Your task to perform on an android device: add a contact in the contacts app Image 0: 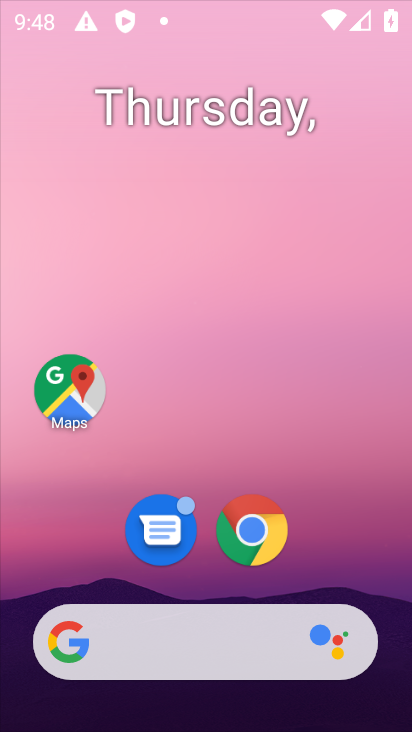
Step 0: press home button
Your task to perform on an android device: add a contact in the contacts app Image 1: 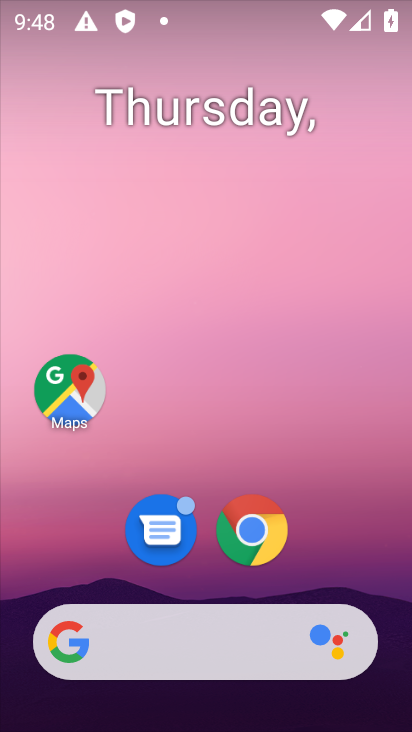
Step 1: press home button
Your task to perform on an android device: add a contact in the contacts app Image 2: 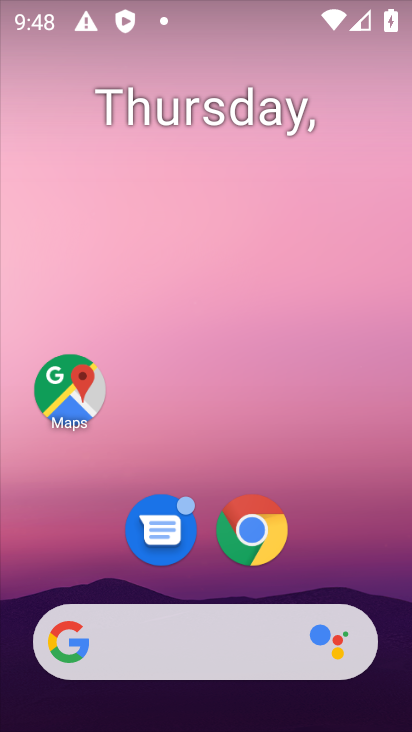
Step 2: drag from (356, 575) to (408, 45)
Your task to perform on an android device: add a contact in the contacts app Image 3: 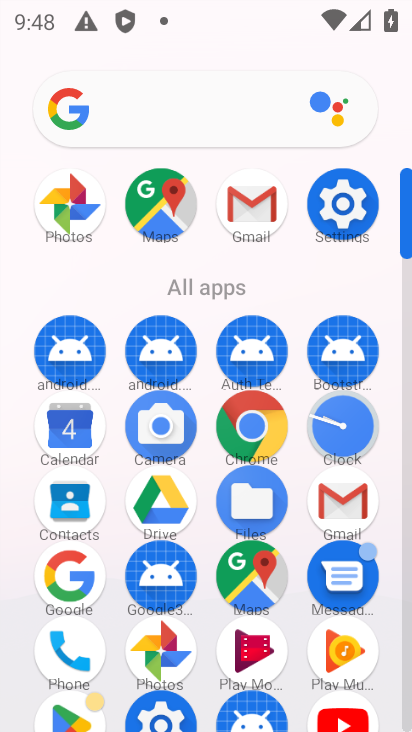
Step 3: click (65, 513)
Your task to perform on an android device: add a contact in the contacts app Image 4: 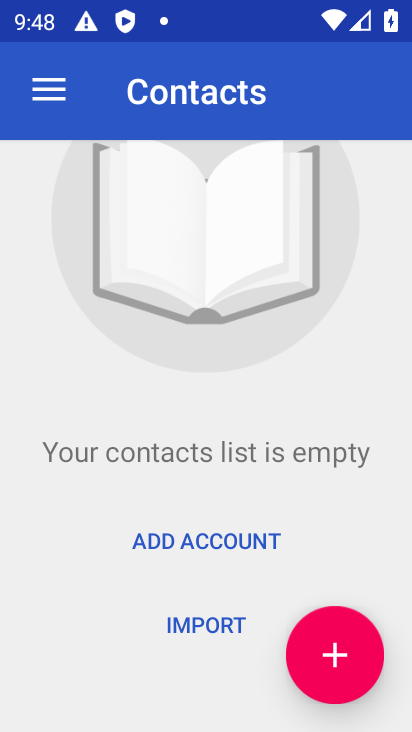
Step 4: click (336, 651)
Your task to perform on an android device: add a contact in the contacts app Image 5: 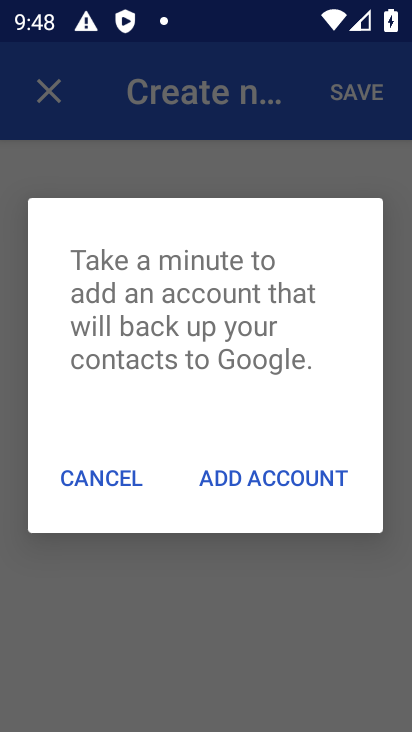
Step 5: click (103, 468)
Your task to perform on an android device: add a contact in the contacts app Image 6: 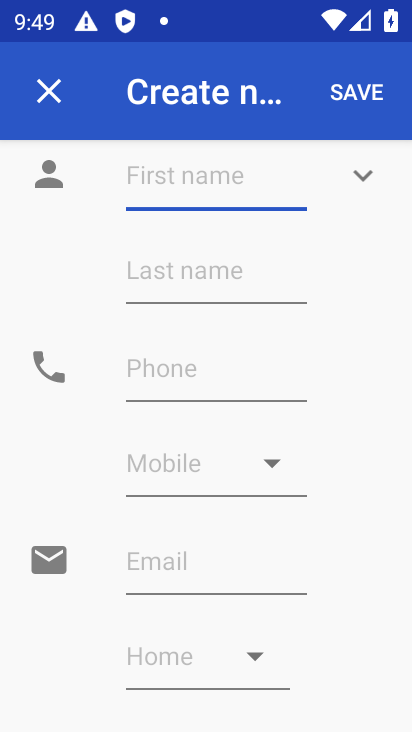
Step 6: type "jjjjttttttttt"
Your task to perform on an android device: add a contact in the contacts app Image 7: 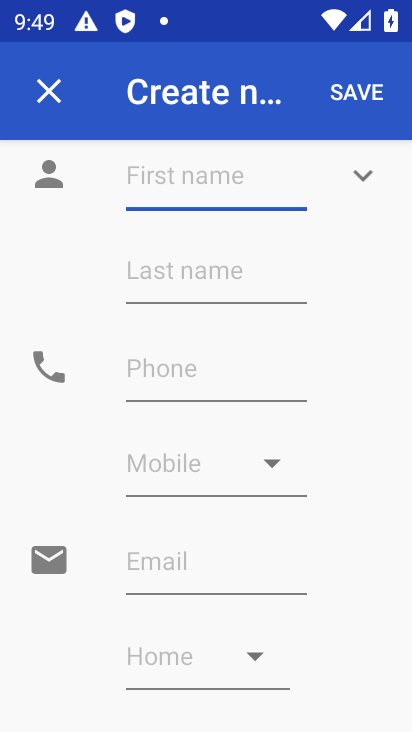
Step 7: click (169, 377)
Your task to perform on an android device: add a contact in the contacts app Image 8: 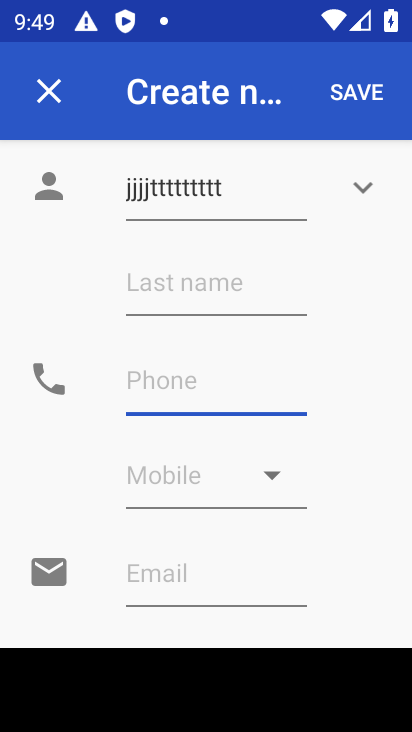
Step 8: type "66666666644444444"
Your task to perform on an android device: add a contact in the contacts app Image 9: 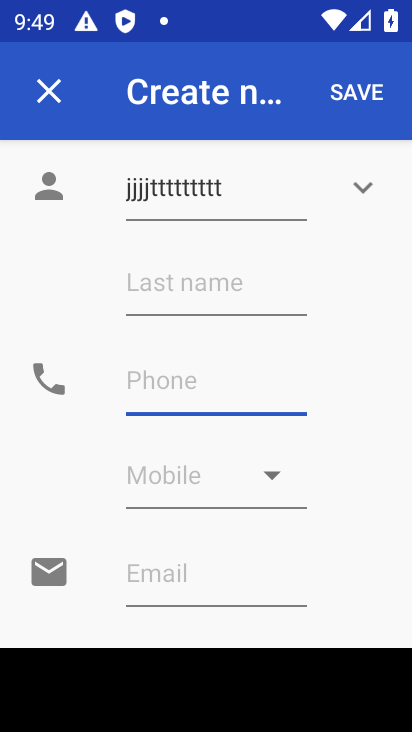
Step 9: click (180, 387)
Your task to perform on an android device: add a contact in the contacts app Image 10: 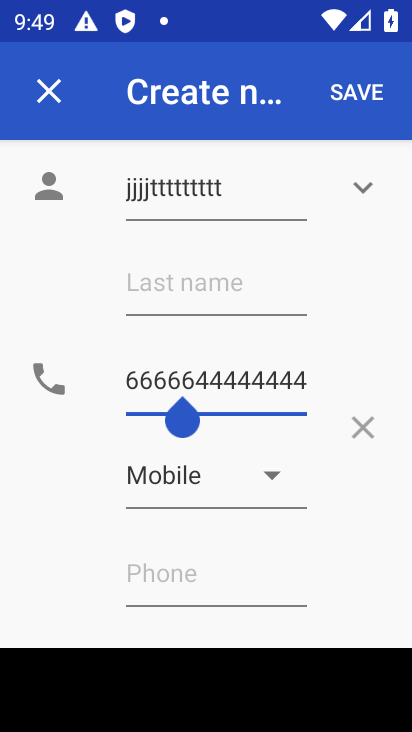
Step 10: click (357, 95)
Your task to perform on an android device: add a contact in the contacts app Image 11: 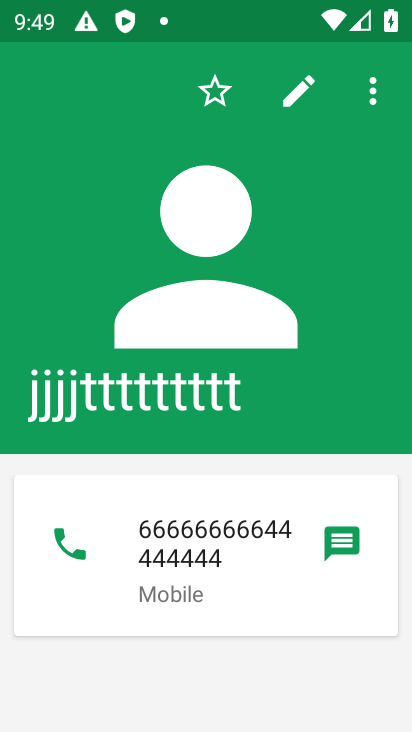
Step 11: task complete